Your task to perform on an android device: Search for sushi restaurants on Maps Image 0: 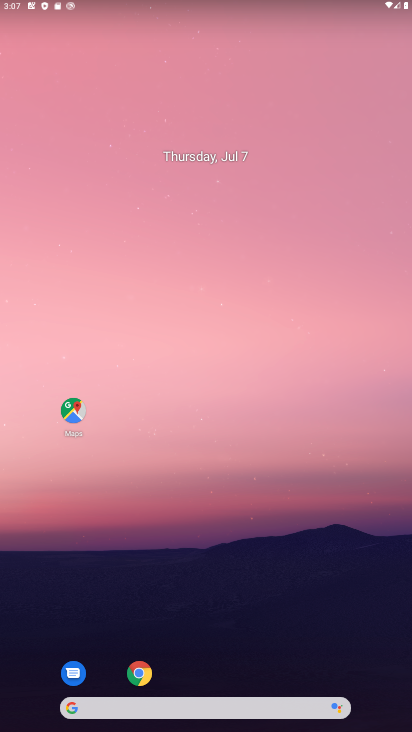
Step 0: drag from (169, 682) to (261, 162)
Your task to perform on an android device: Search for sushi restaurants on Maps Image 1: 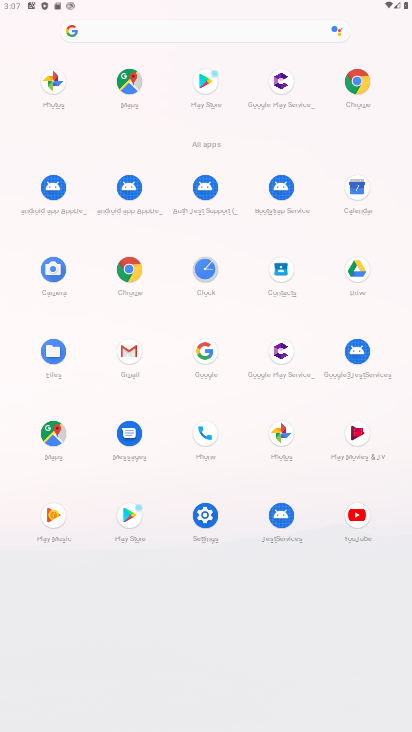
Step 1: click (54, 435)
Your task to perform on an android device: Search for sushi restaurants on Maps Image 2: 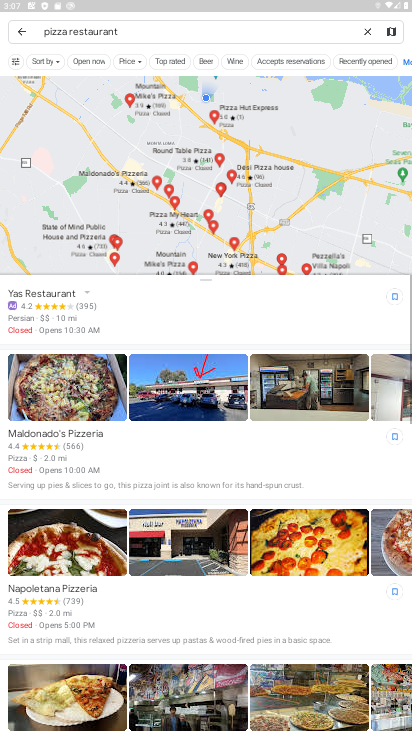
Step 2: click (363, 29)
Your task to perform on an android device: Search for sushi restaurants on Maps Image 3: 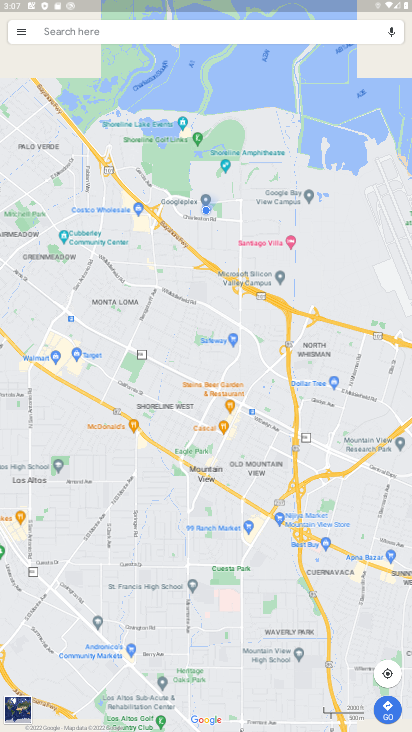
Step 3: click (198, 37)
Your task to perform on an android device: Search for sushi restaurants on Maps Image 4: 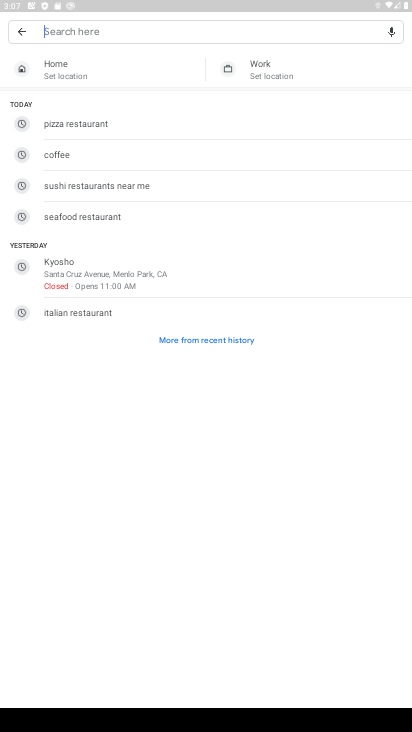
Step 4: type "sushi restaureants"
Your task to perform on an android device: Search for sushi restaurants on Maps Image 5: 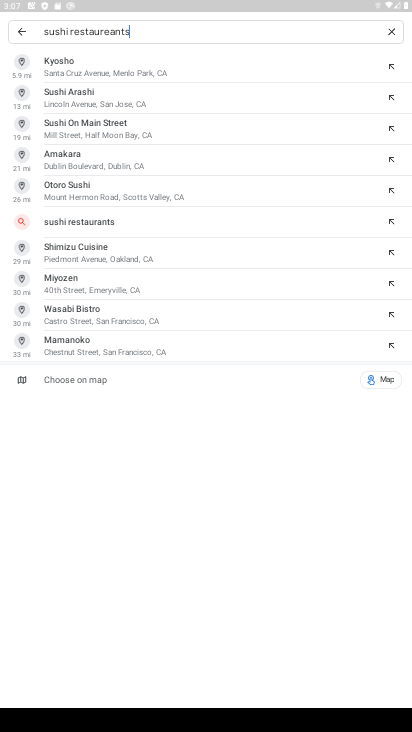
Step 5: press enter
Your task to perform on an android device: Search for sushi restaurants on Maps Image 6: 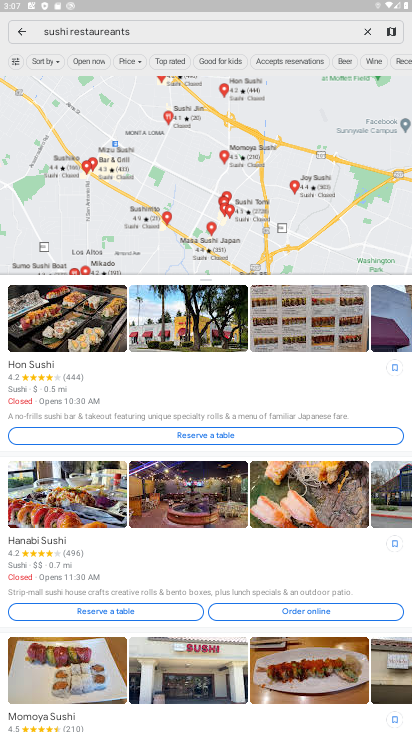
Step 6: task complete